Your task to perform on an android device: visit the assistant section in the google photos Image 0: 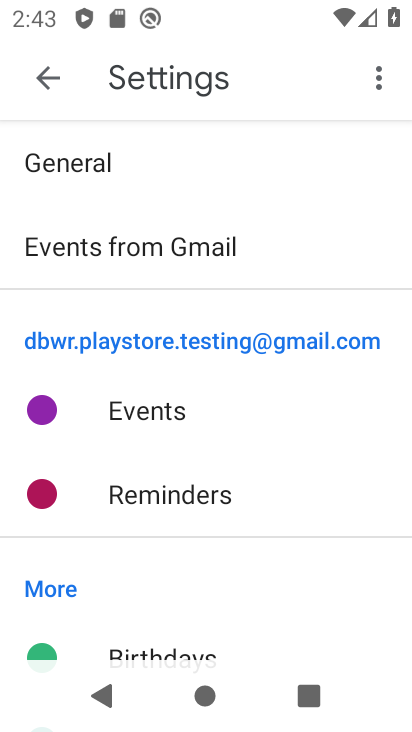
Step 0: press home button
Your task to perform on an android device: visit the assistant section in the google photos Image 1: 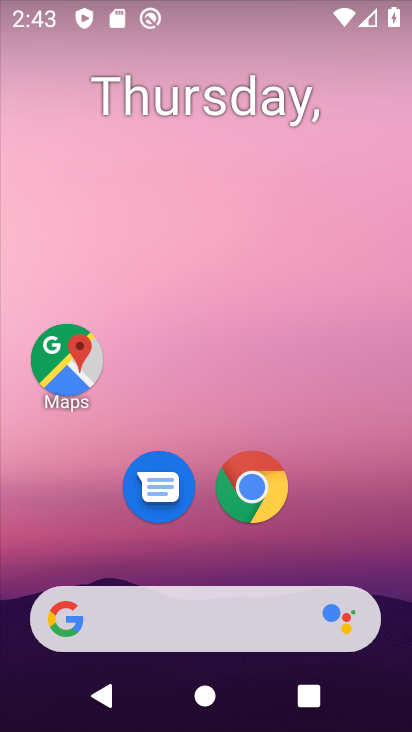
Step 1: drag from (392, 399) to (396, 94)
Your task to perform on an android device: visit the assistant section in the google photos Image 2: 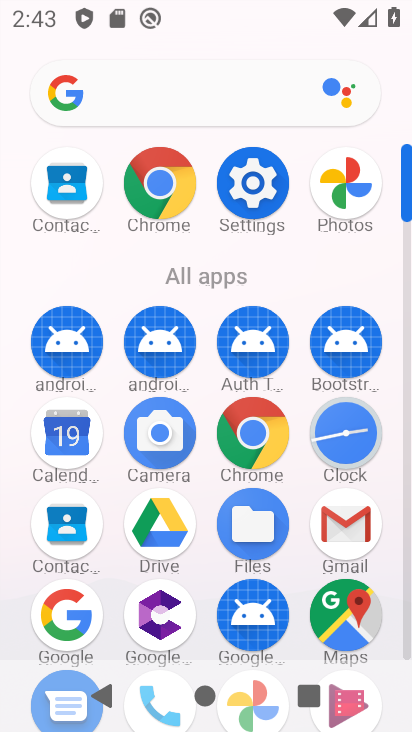
Step 2: click (333, 182)
Your task to perform on an android device: visit the assistant section in the google photos Image 3: 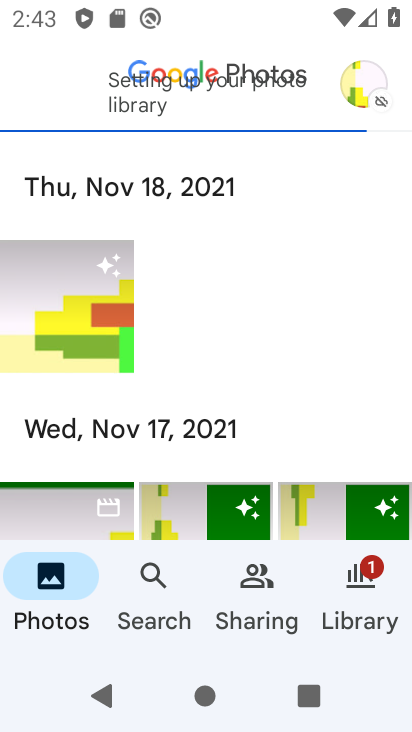
Step 3: task complete